Your task to perform on an android device: Open Youtube and go to "Your channel" Image 0: 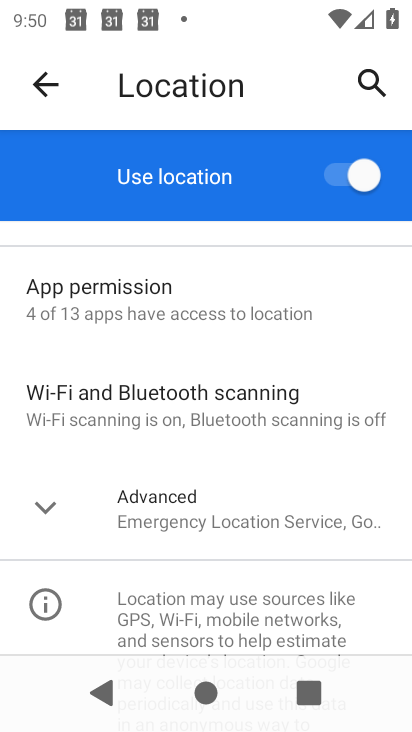
Step 0: press home button
Your task to perform on an android device: Open Youtube and go to "Your channel" Image 1: 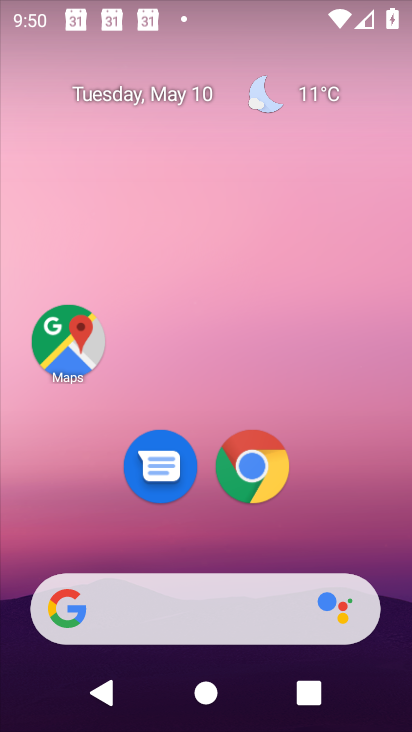
Step 1: drag from (348, 486) to (291, 115)
Your task to perform on an android device: Open Youtube and go to "Your channel" Image 2: 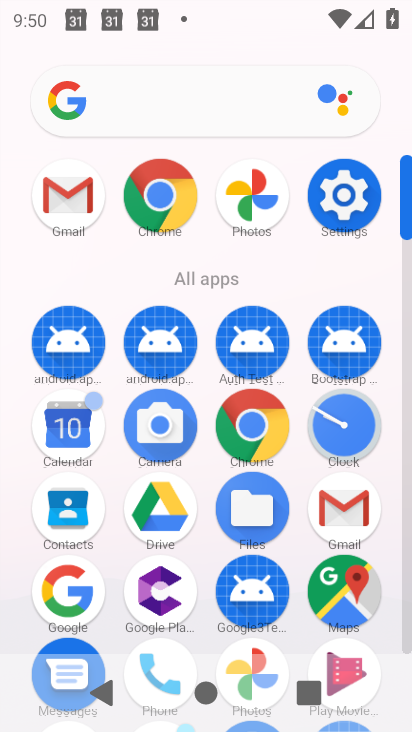
Step 2: drag from (298, 550) to (338, 195)
Your task to perform on an android device: Open Youtube and go to "Your channel" Image 3: 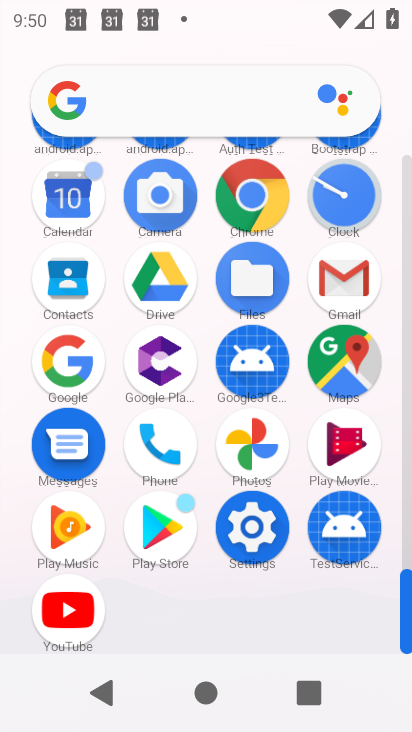
Step 3: click (59, 632)
Your task to perform on an android device: Open Youtube and go to "Your channel" Image 4: 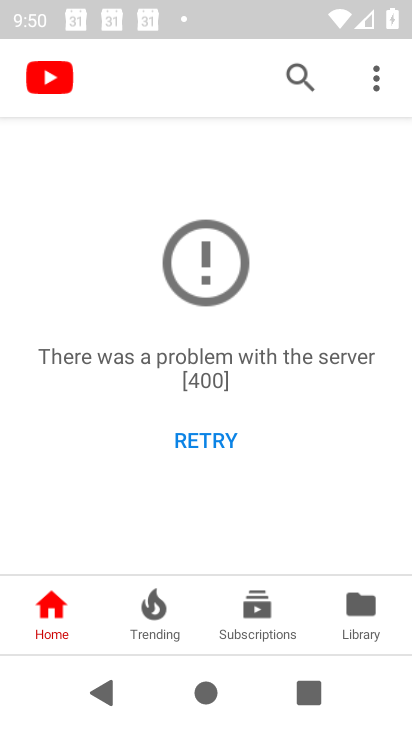
Step 4: click (373, 73)
Your task to perform on an android device: Open Youtube and go to "Your channel" Image 5: 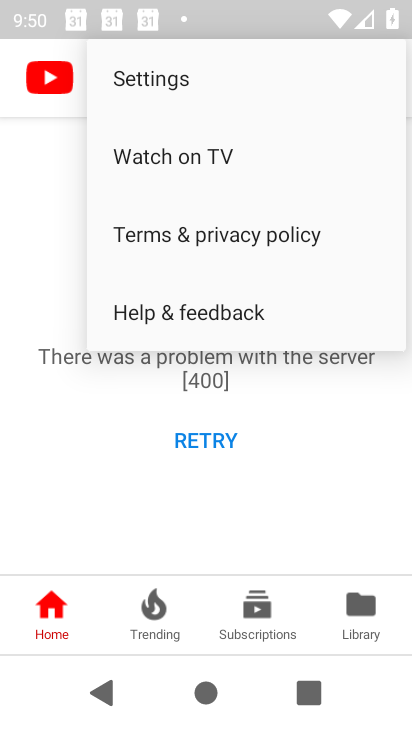
Step 5: click (118, 456)
Your task to perform on an android device: Open Youtube and go to "Your channel" Image 6: 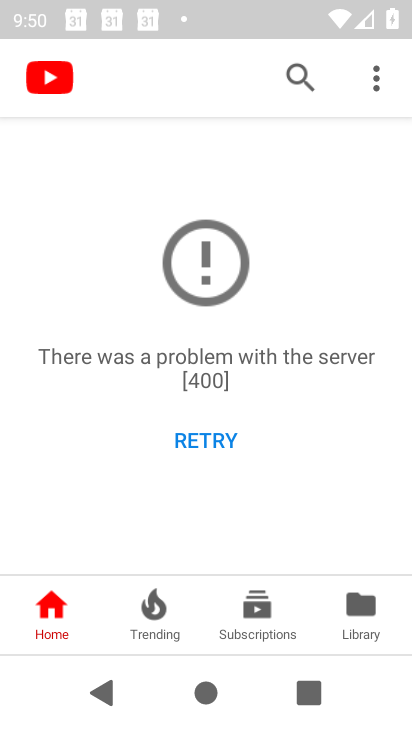
Step 6: click (264, 616)
Your task to perform on an android device: Open Youtube and go to "Your channel" Image 7: 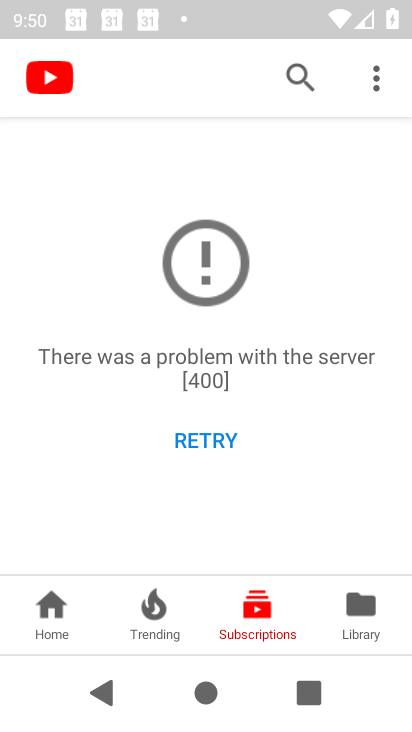
Step 7: click (154, 620)
Your task to perform on an android device: Open Youtube and go to "Your channel" Image 8: 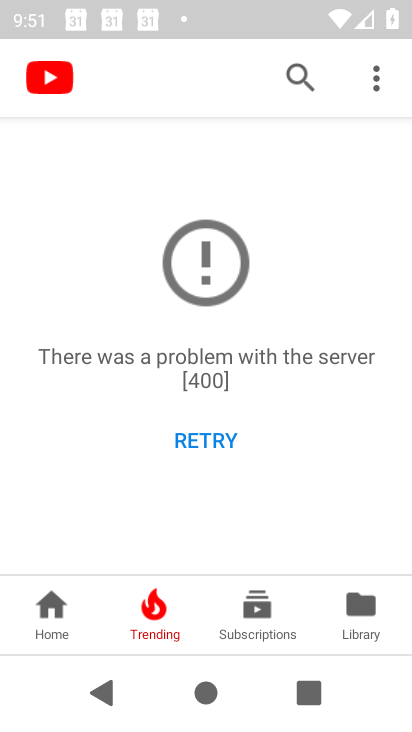
Step 8: click (372, 603)
Your task to perform on an android device: Open Youtube and go to "Your channel" Image 9: 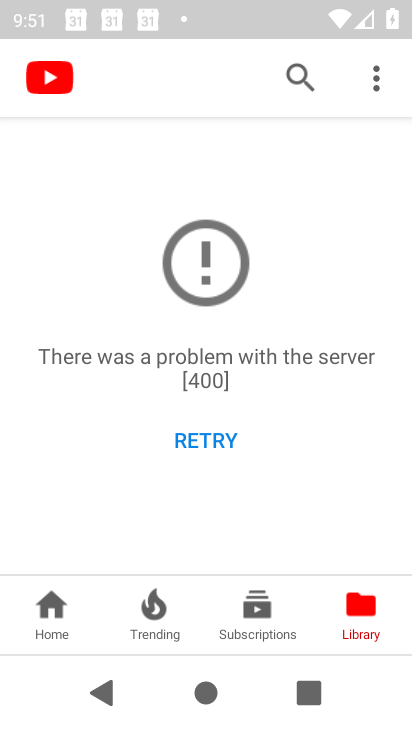
Step 9: task complete